Your task to perform on an android device: Open Android settings Image 0: 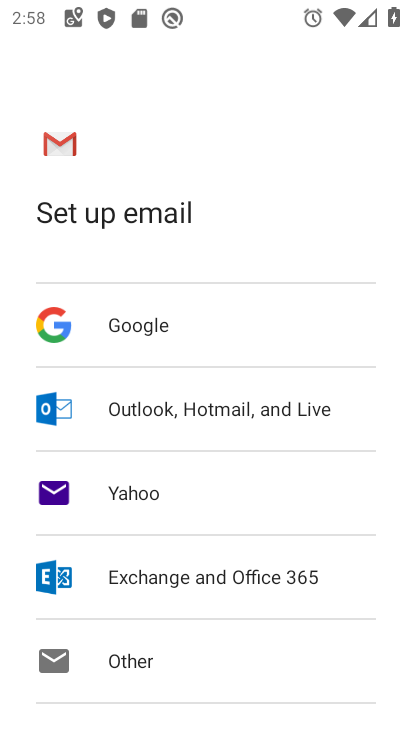
Step 0: press home button
Your task to perform on an android device: Open Android settings Image 1: 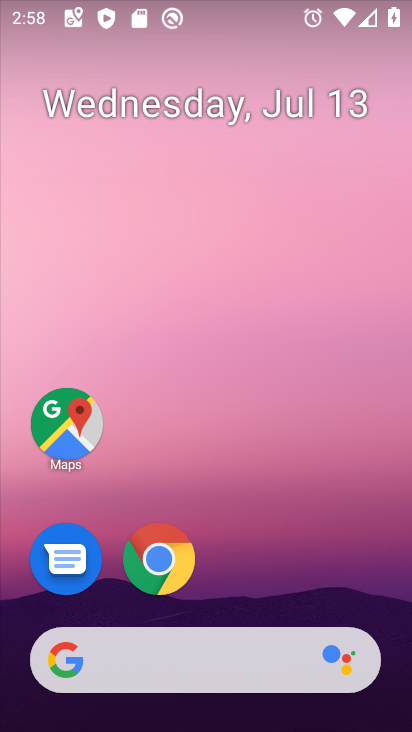
Step 1: drag from (339, 536) to (340, 163)
Your task to perform on an android device: Open Android settings Image 2: 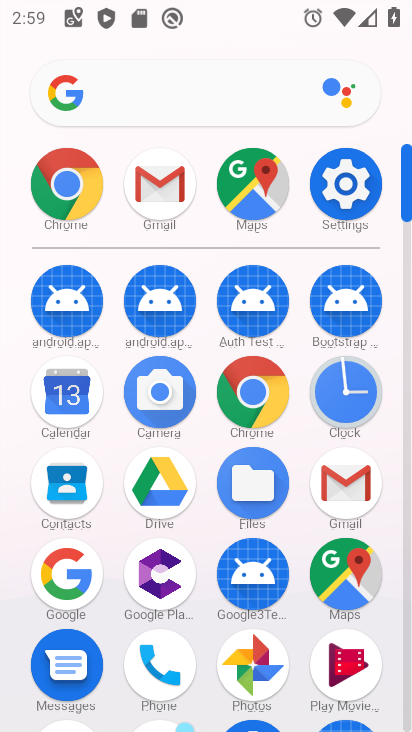
Step 2: click (352, 202)
Your task to perform on an android device: Open Android settings Image 3: 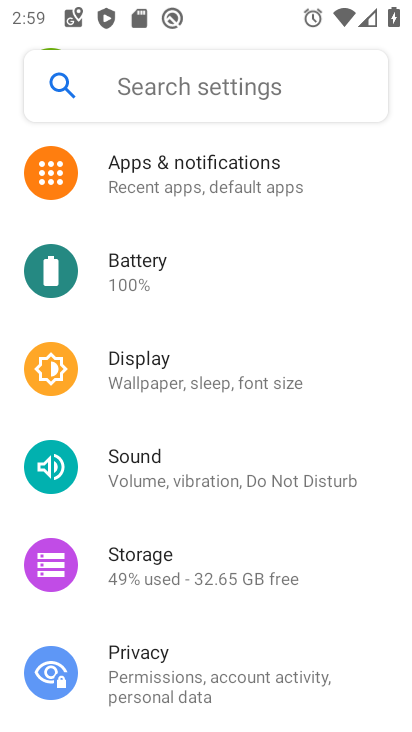
Step 3: drag from (347, 544) to (344, 301)
Your task to perform on an android device: Open Android settings Image 4: 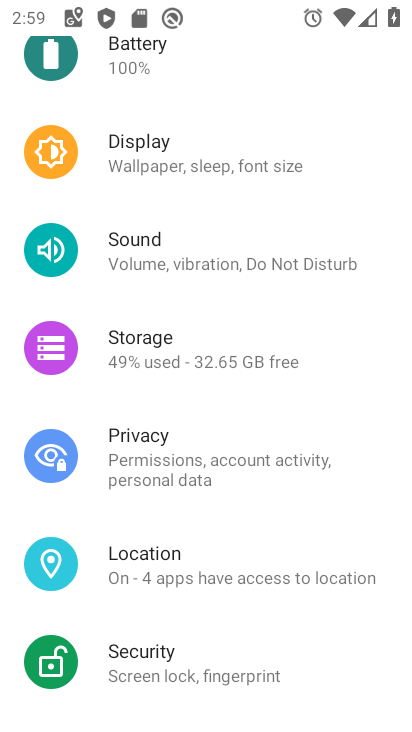
Step 4: drag from (338, 518) to (351, 317)
Your task to perform on an android device: Open Android settings Image 5: 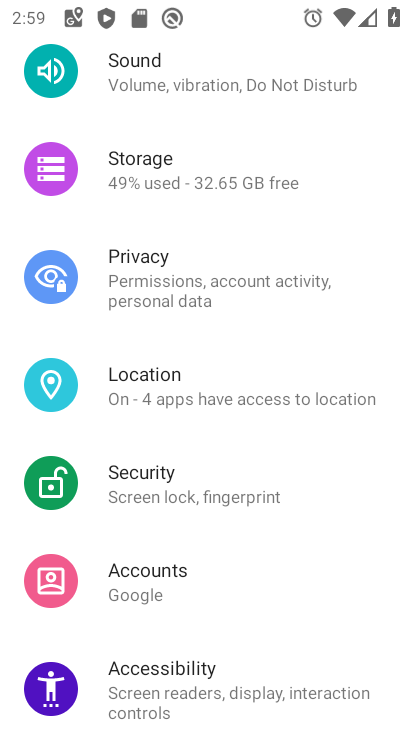
Step 5: drag from (358, 559) to (357, 413)
Your task to perform on an android device: Open Android settings Image 6: 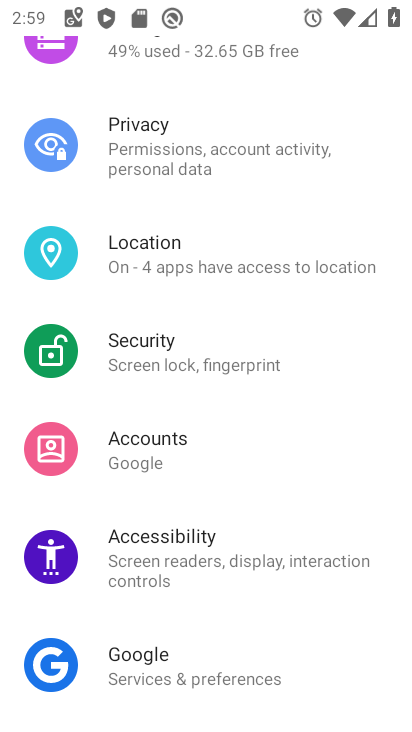
Step 6: drag from (349, 602) to (341, 398)
Your task to perform on an android device: Open Android settings Image 7: 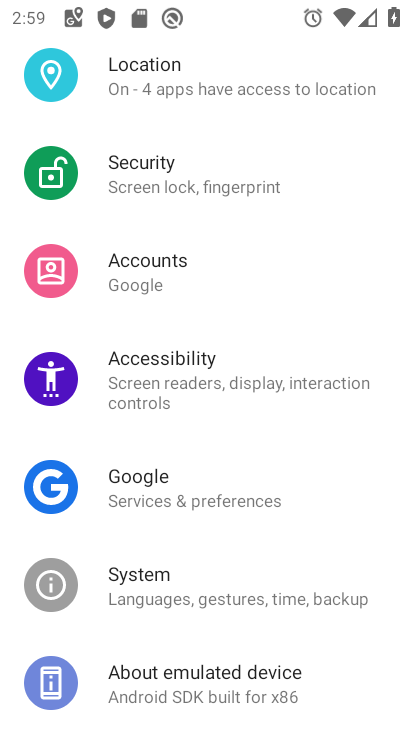
Step 7: click (299, 596)
Your task to perform on an android device: Open Android settings Image 8: 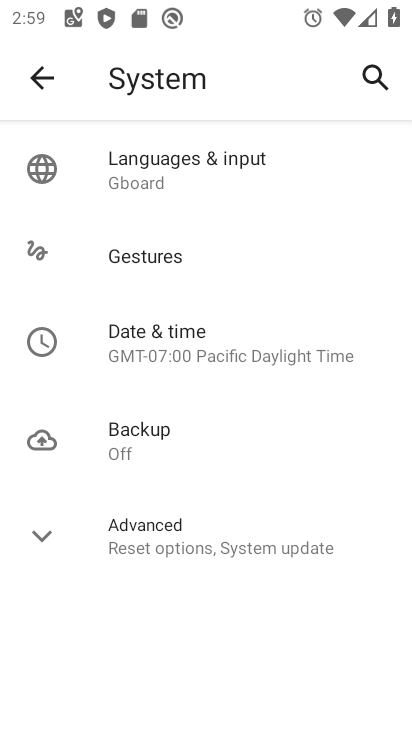
Step 8: click (207, 551)
Your task to perform on an android device: Open Android settings Image 9: 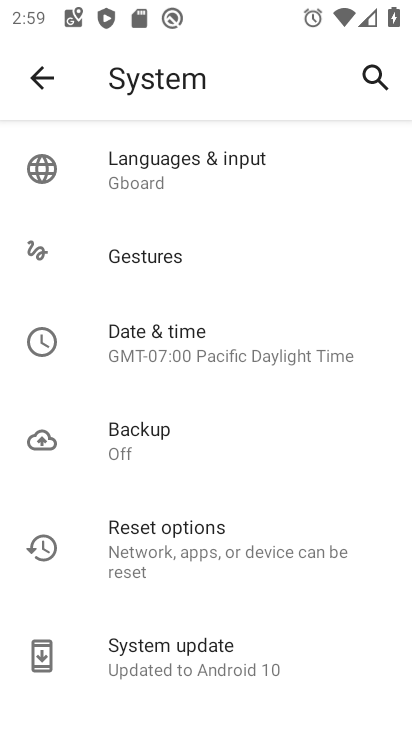
Step 9: task complete